Your task to perform on an android device: Is it going to rain this weekend? Image 0: 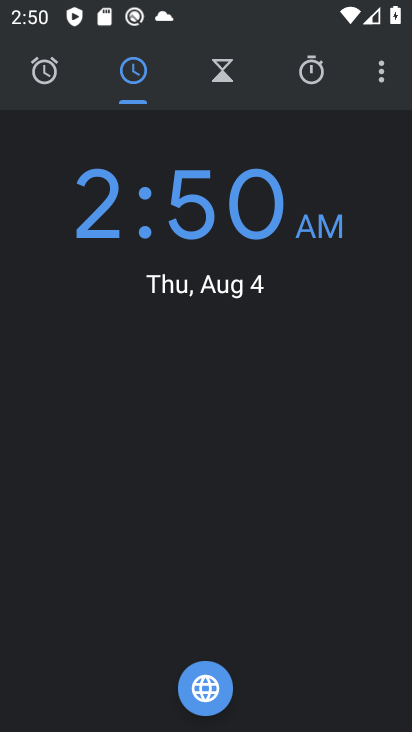
Step 0: press home button
Your task to perform on an android device: Is it going to rain this weekend? Image 1: 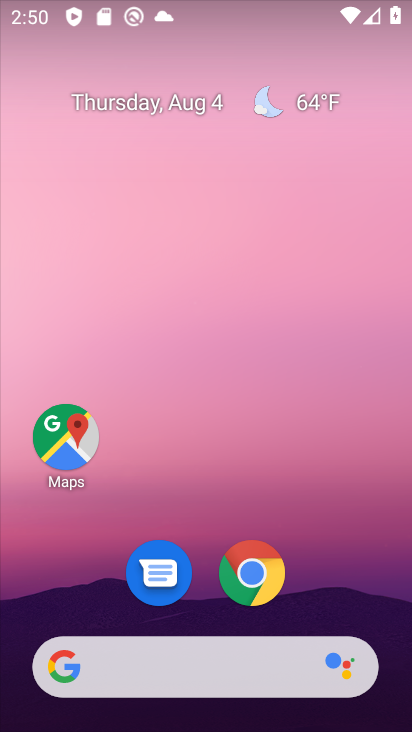
Step 1: click (169, 660)
Your task to perform on an android device: Is it going to rain this weekend? Image 2: 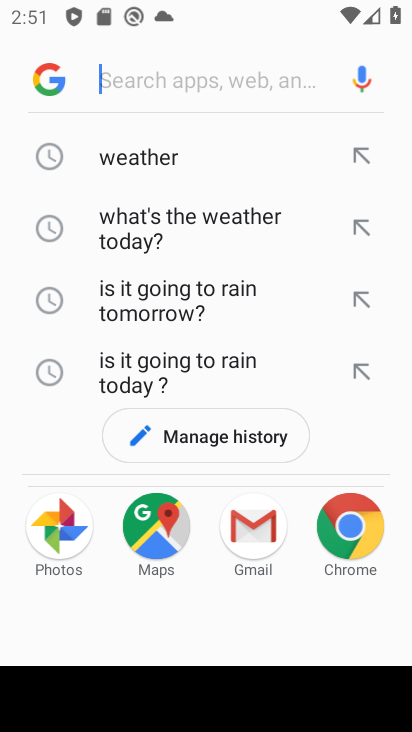
Step 2: click (152, 153)
Your task to perform on an android device: Is it going to rain this weekend? Image 3: 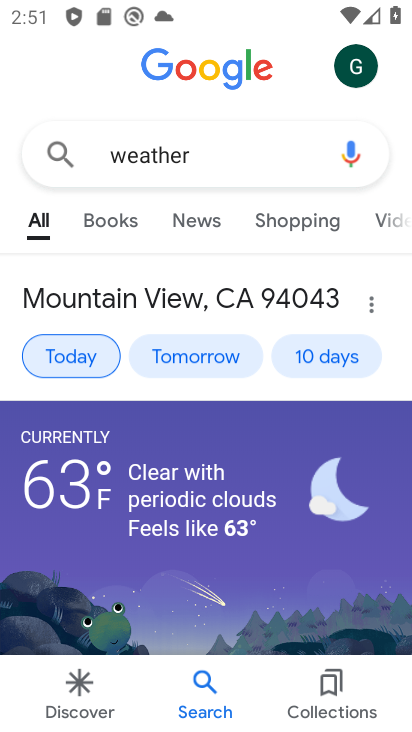
Step 3: click (305, 357)
Your task to perform on an android device: Is it going to rain this weekend? Image 4: 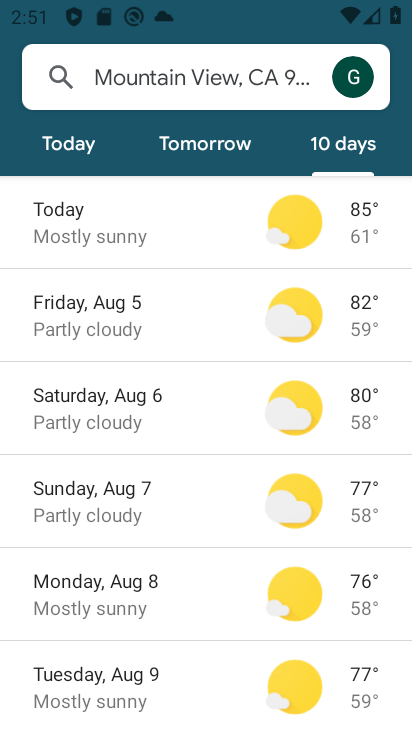
Step 4: task complete